Your task to perform on an android device: Open calendar and show me the first week of next month Image 0: 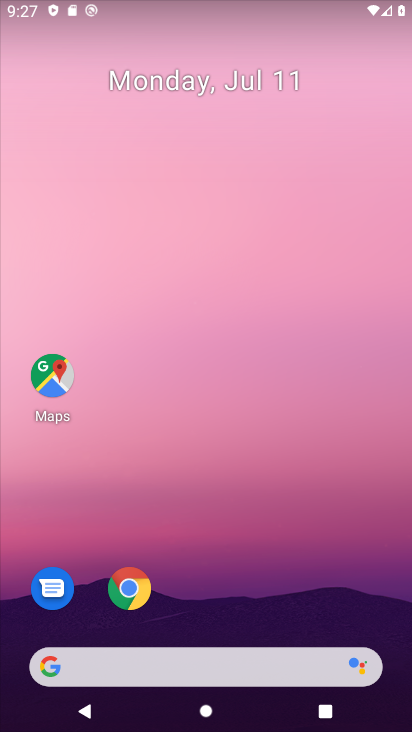
Step 0: drag from (303, 616) to (206, 31)
Your task to perform on an android device: Open calendar and show me the first week of next month Image 1: 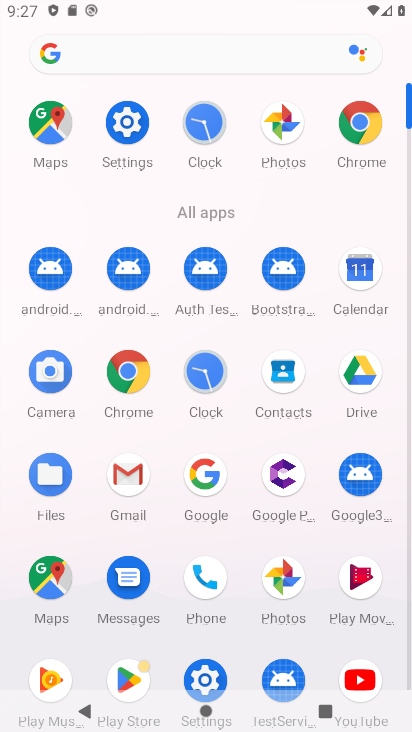
Step 1: click (357, 272)
Your task to perform on an android device: Open calendar and show me the first week of next month Image 2: 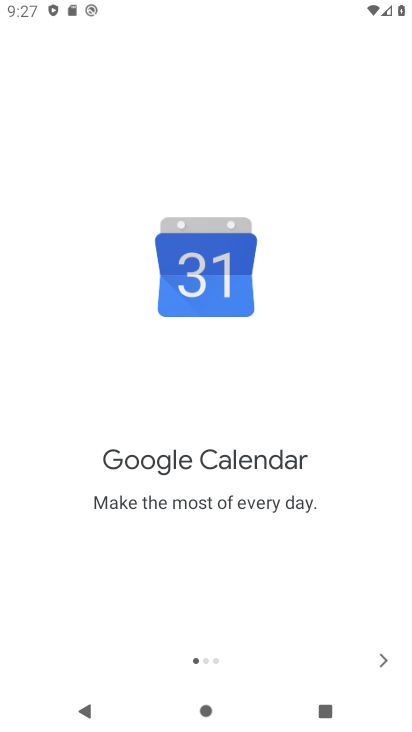
Step 2: click (381, 663)
Your task to perform on an android device: Open calendar and show me the first week of next month Image 3: 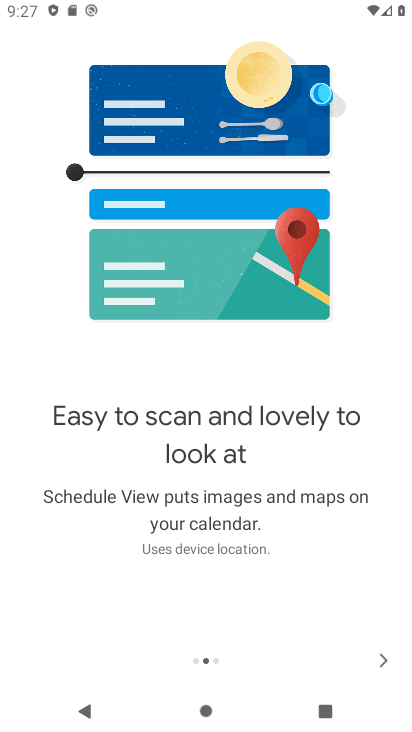
Step 3: click (381, 663)
Your task to perform on an android device: Open calendar and show me the first week of next month Image 4: 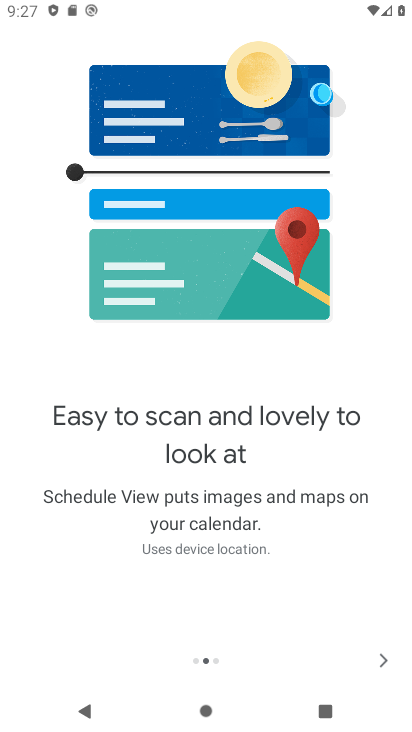
Step 4: click (388, 653)
Your task to perform on an android device: Open calendar and show me the first week of next month Image 5: 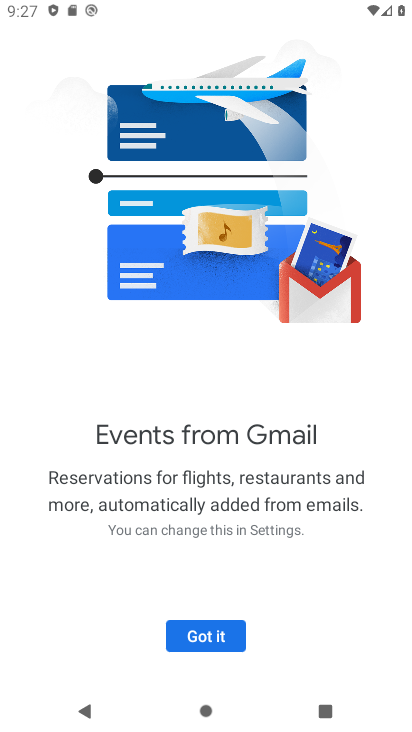
Step 5: click (214, 623)
Your task to perform on an android device: Open calendar and show me the first week of next month Image 6: 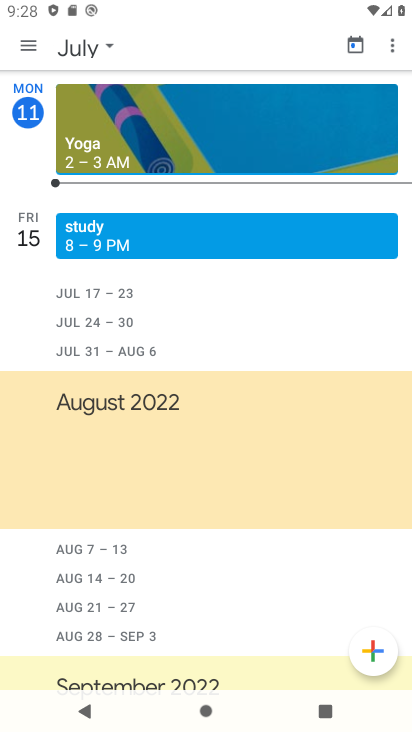
Step 6: click (77, 54)
Your task to perform on an android device: Open calendar and show me the first week of next month Image 7: 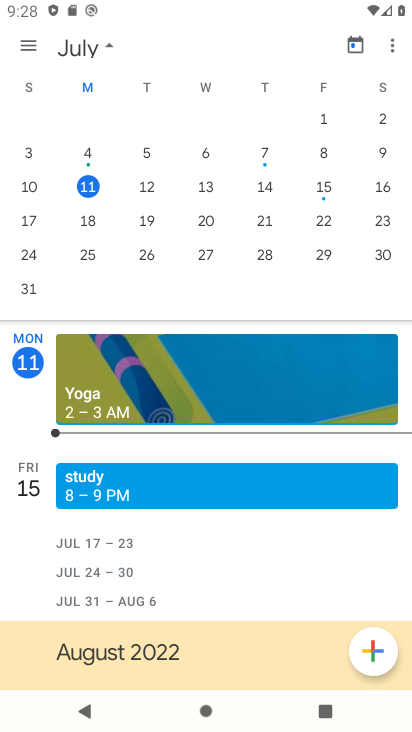
Step 7: drag from (349, 166) to (9, 122)
Your task to perform on an android device: Open calendar and show me the first week of next month Image 8: 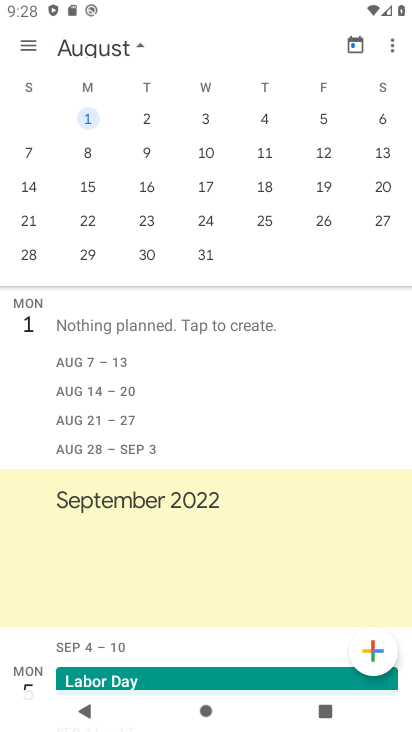
Step 8: click (96, 117)
Your task to perform on an android device: Open calendar and show me the first week of next month Image 9: 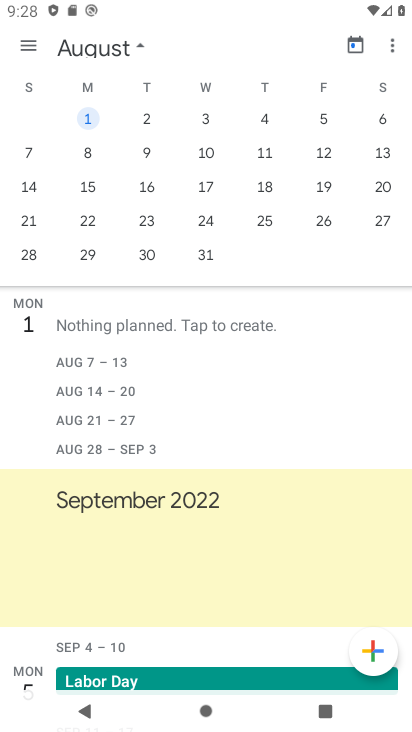
Step 9: task complete